Your task to perform on an android device: change alarm snooze length Image 0: 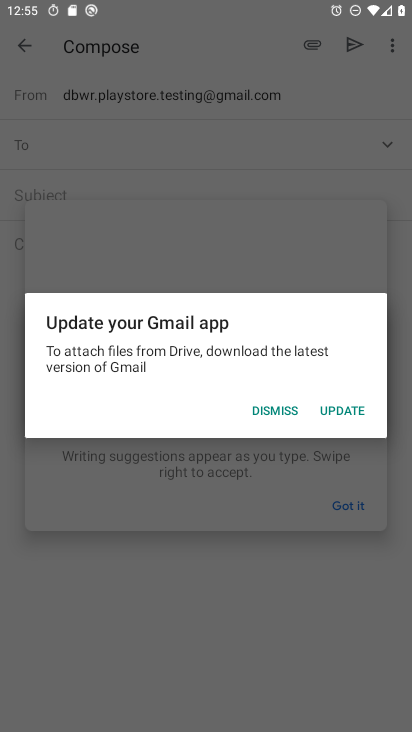
Step 0: press home button
Your task to perform on an android device: change alarm snooze length Image 1: 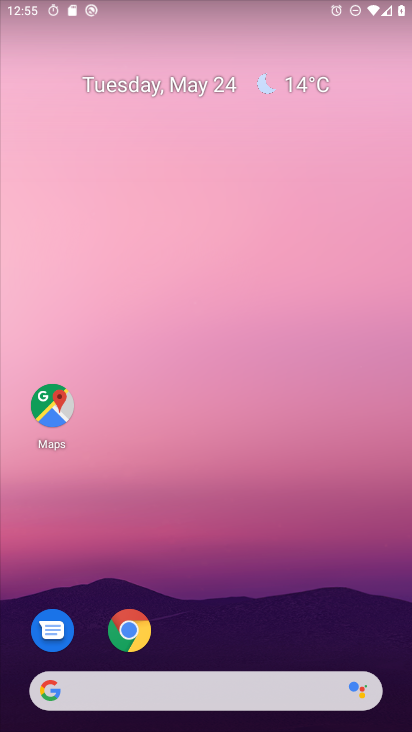
Step 1: drag from (367, 622) to (318, 183)
Your task to perform on an android device: change alarm snooze length Image 2: 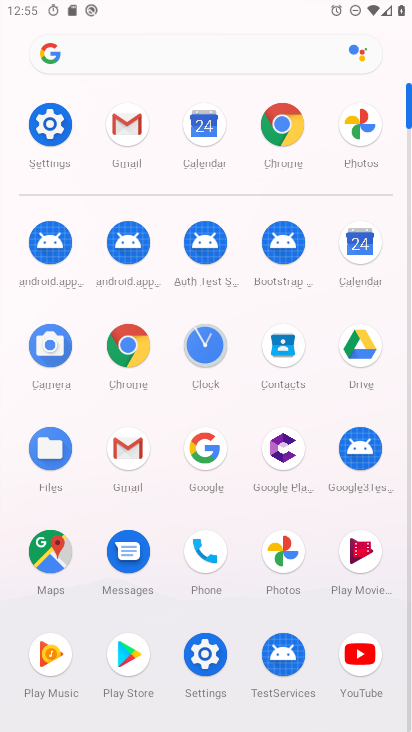
Step 2: click (216, 358)
Your task to perform on an android device: change alarm snooze length Image 3: 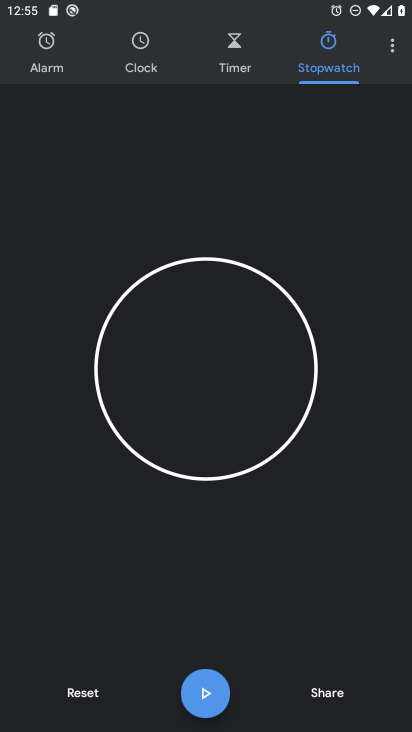
Step 3: click (384, 44)
Your task to perform on an android device: change alarm snooze length Image 4: 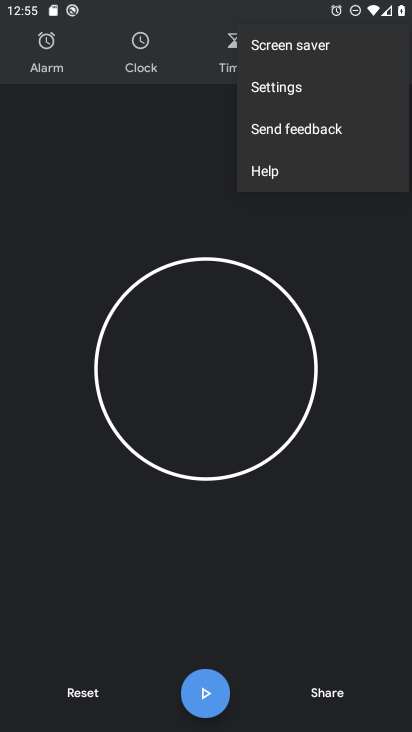
Step 4: click (280, 93)
Your task to perform on an android device: change alarm snooze length Image 5: 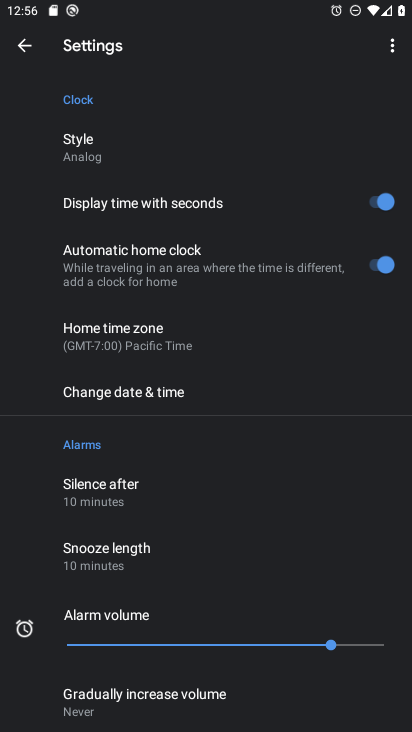
Step 5: click (175, 541)
Your task to perform on an android device: change alarm snooze length Image 6: 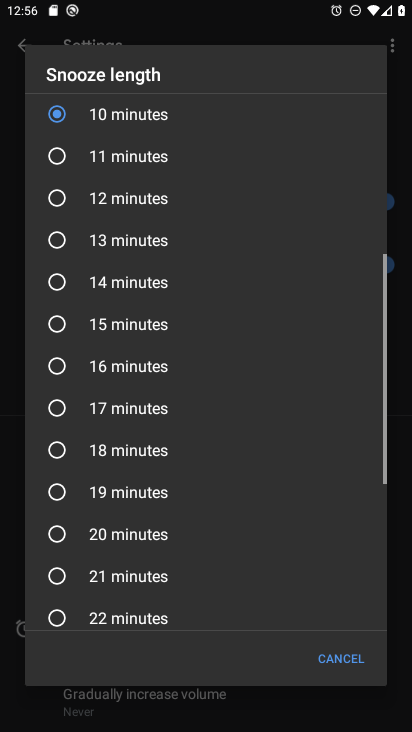
Step 6: click (135, 355)
Your task to perform on an android device: change alarm snooze length Image 7: 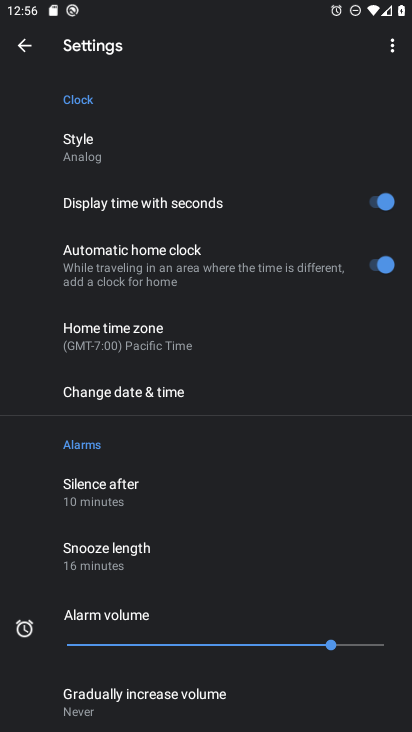
Step 7: task complete